Your task to perform on an android device: Open settings Image 0: 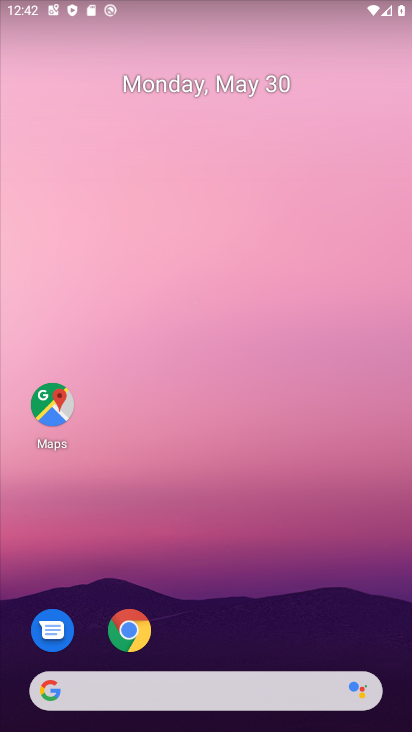
Step 0: drag from (210, 654) to (299, 99)
Your task to perform on an android device: Open settings Image 1: 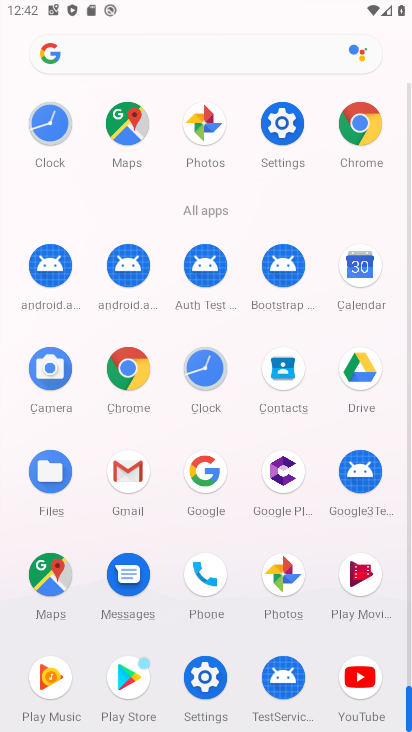
Step 1: drag from (224, 548) to (253, 313)
Your task to perform on an android device: Open settings Image 2: 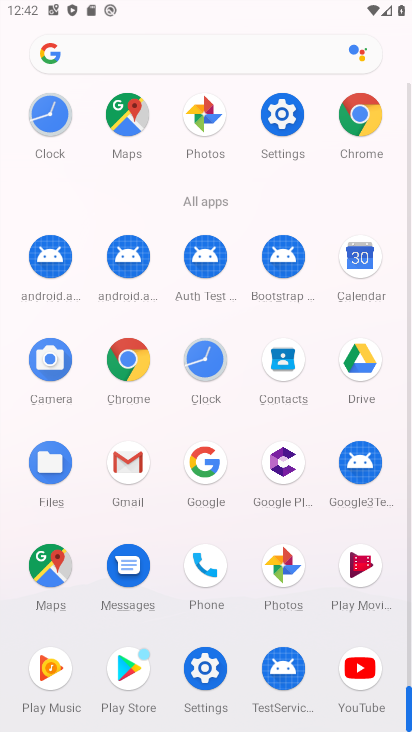
Step 2: click (213, 664)
Your task to perform on an android device: Open settings Image 3: 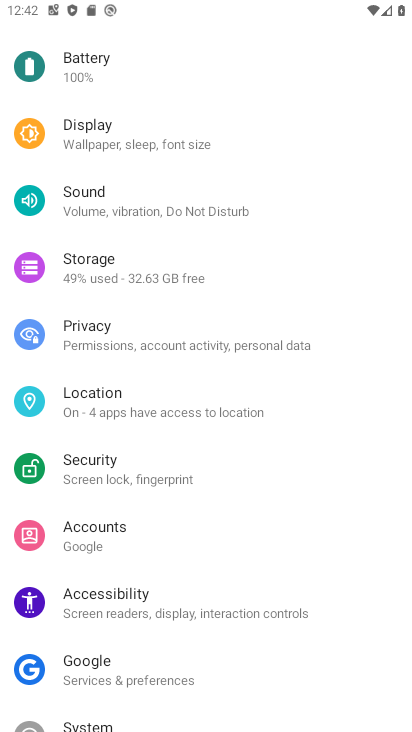
Step 3: task complete